Your task to perform on an android device: Open location settings Image 0: 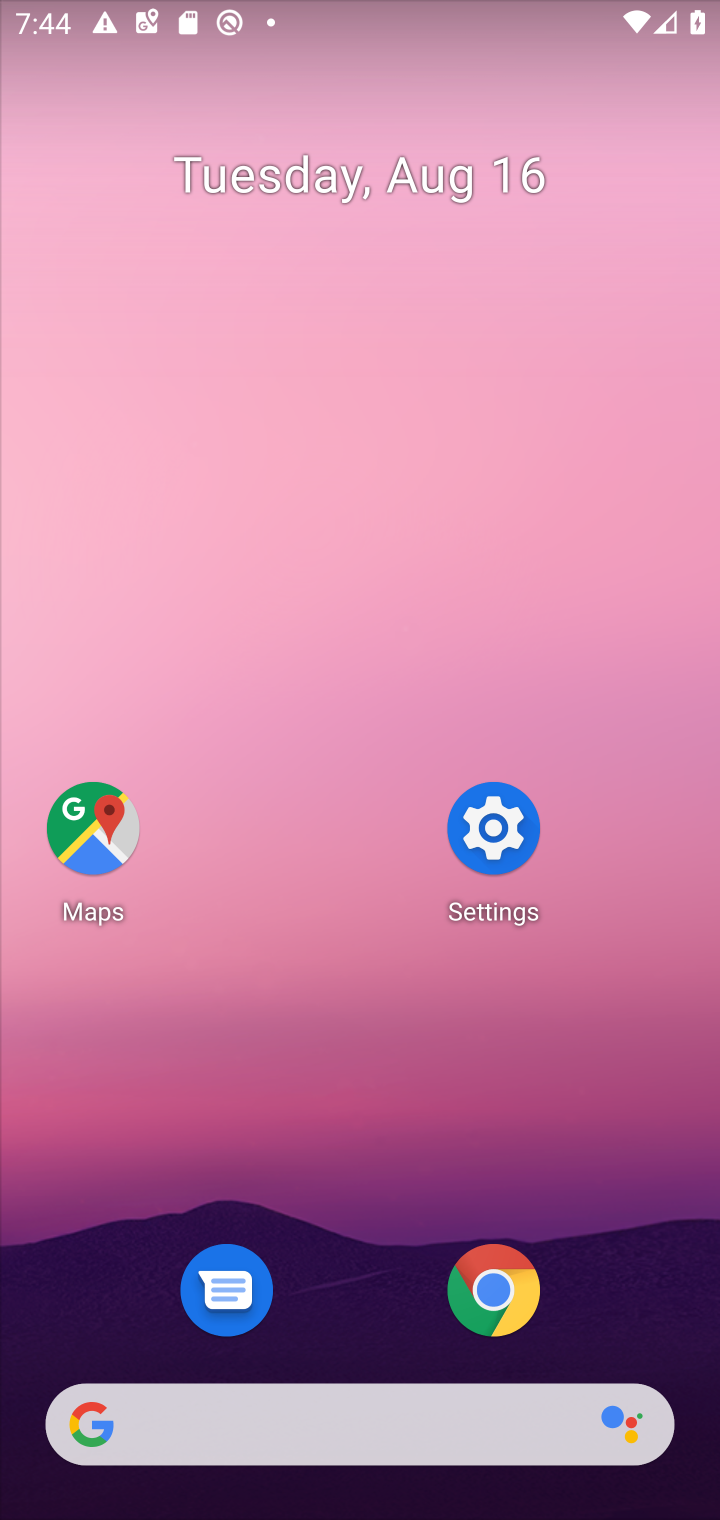
Step 0: press home button
Your task to perform on an android device: Open location settings Image 1: 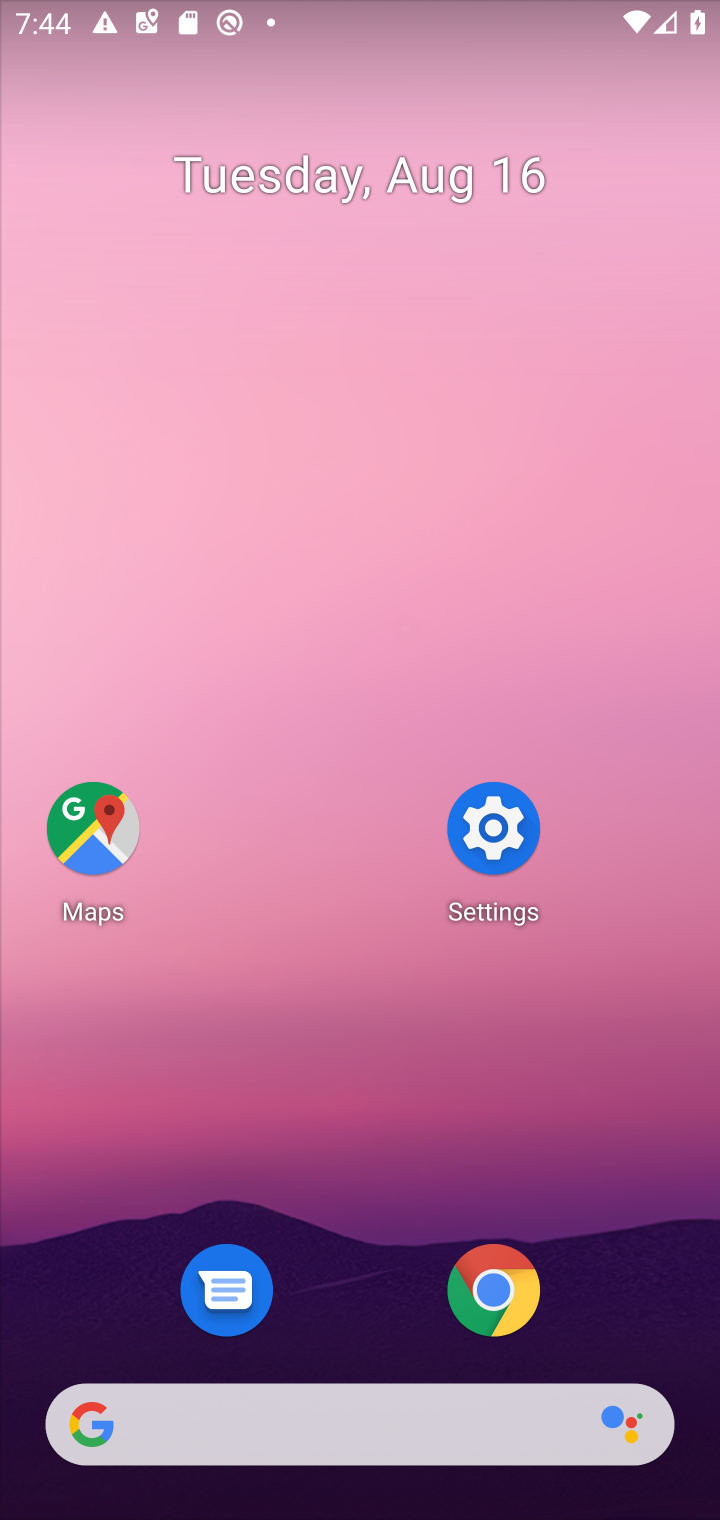
Step 1: click (499, 834)
Your task to perform on an android device: Open location settings Image 2: 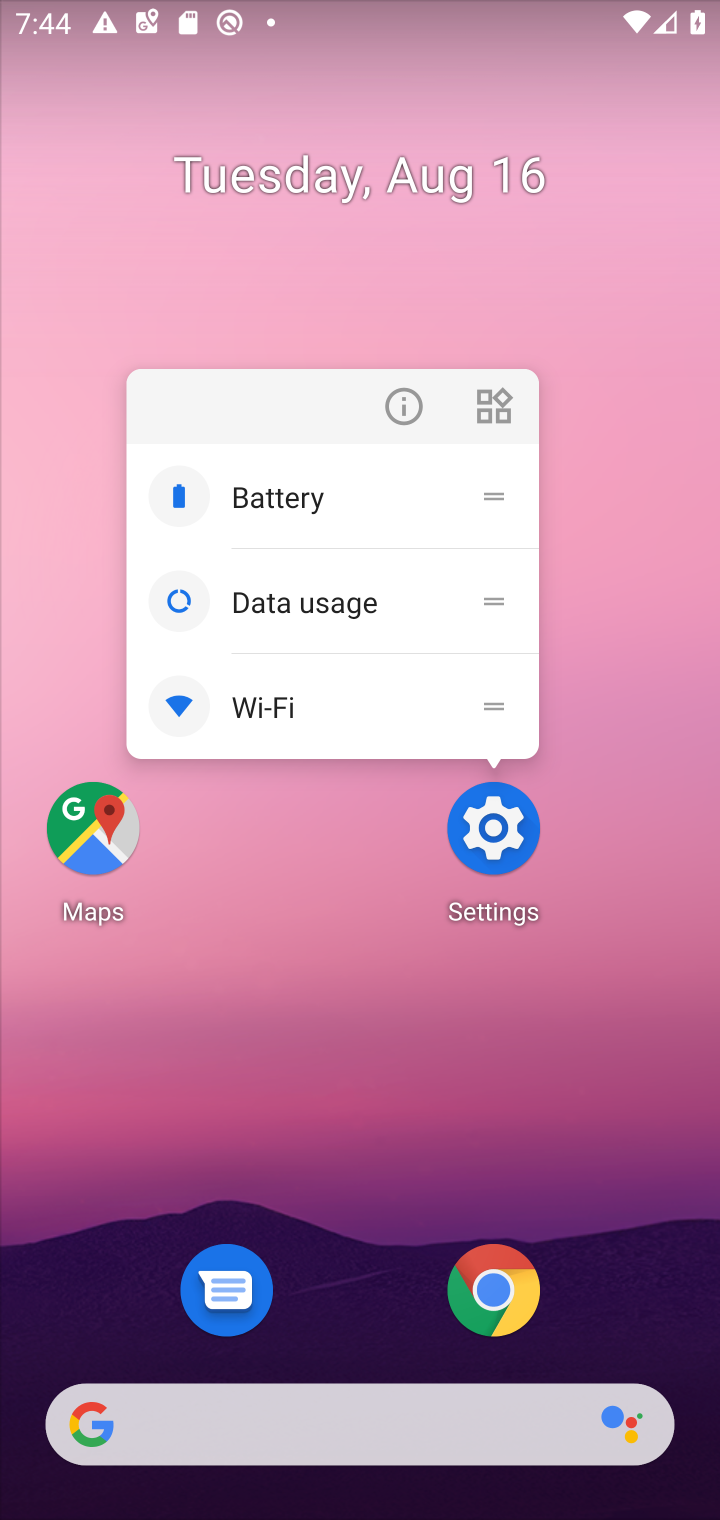
Step 2: click (488, 845)
Your task to perform on an android device: Open location settings Image 3: 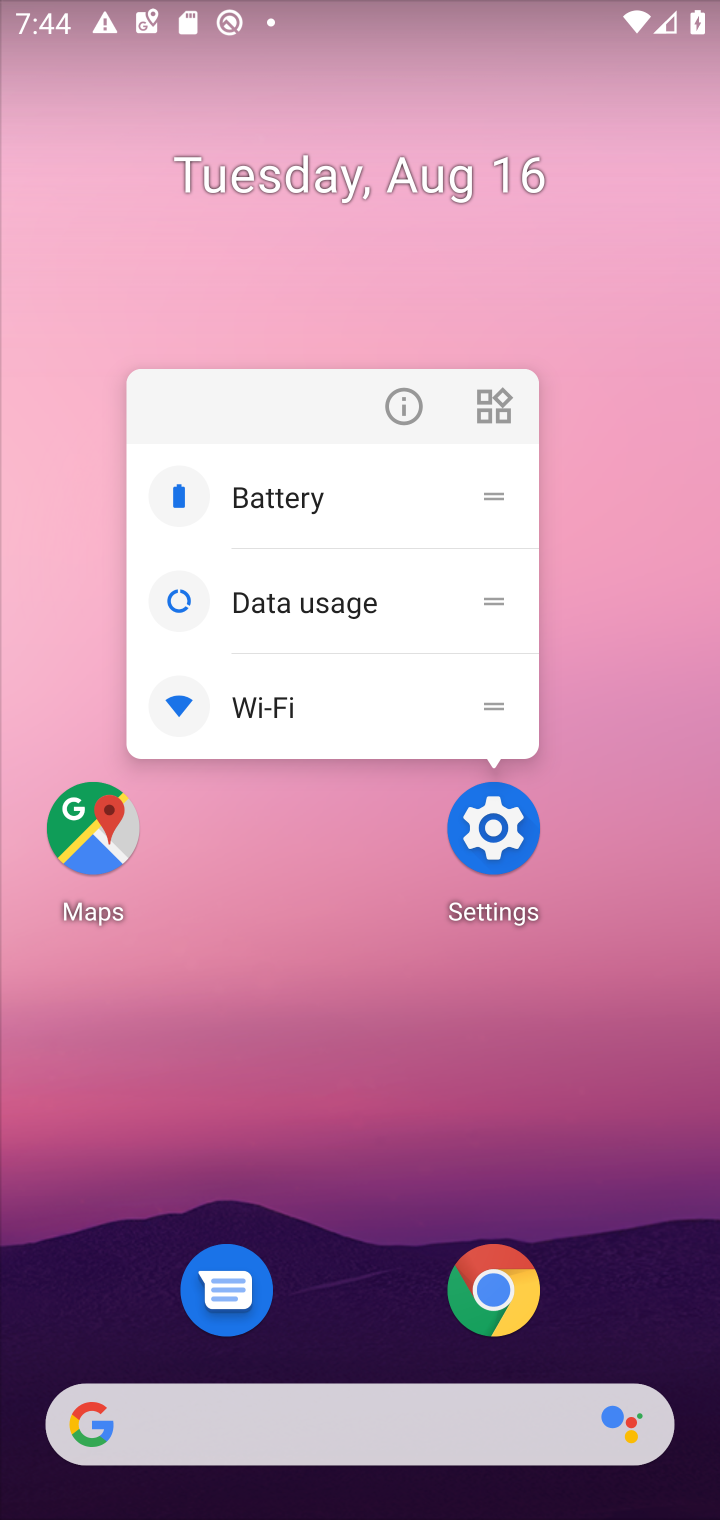
Step 3: click (488, 845)
Your task to perform on an android device: Open location settings Image 4: 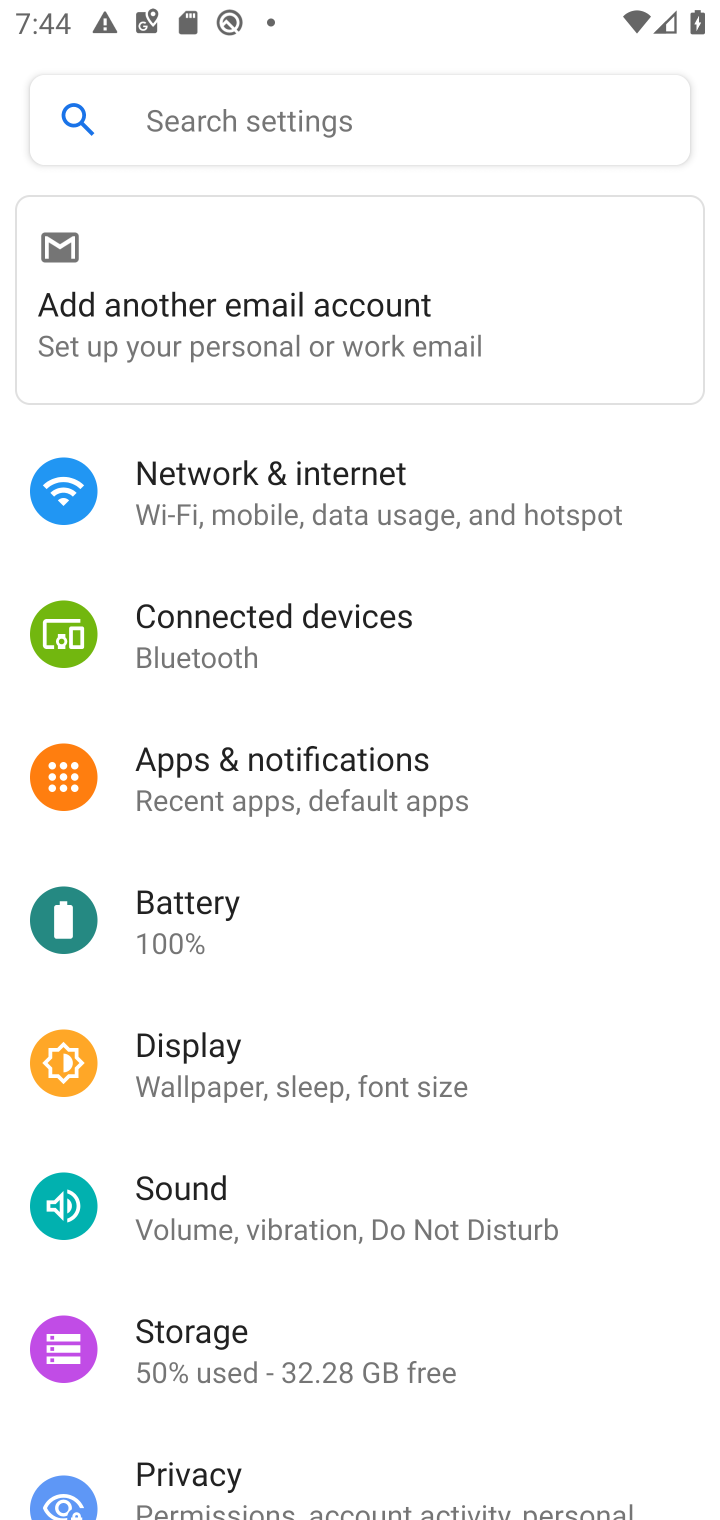
Step 4: drag from (342, 1286) to (632, 442)
Your task to perform on an android device: Open location settings Image 5: 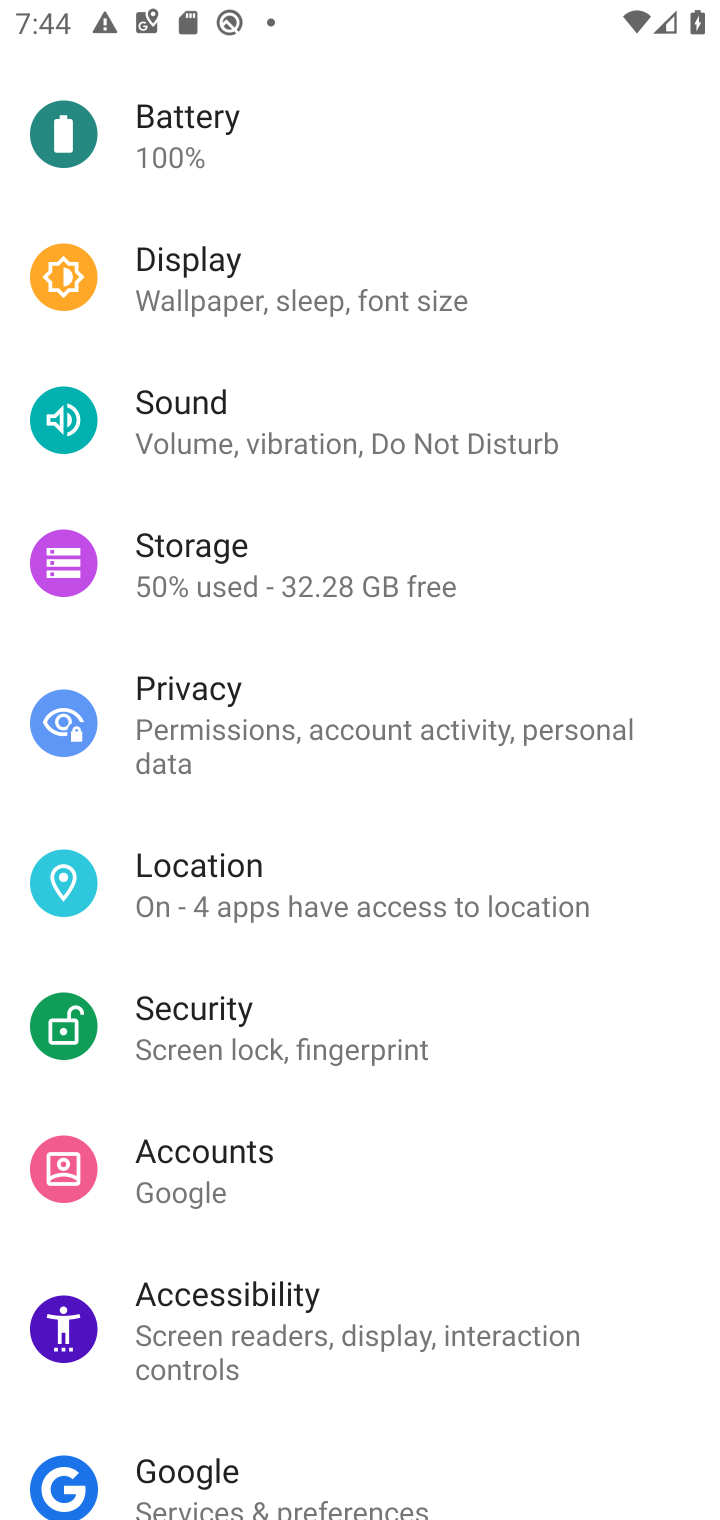
Step 5: click (203, 869)
Your task to perform on an android device: Open location settings Image 6: 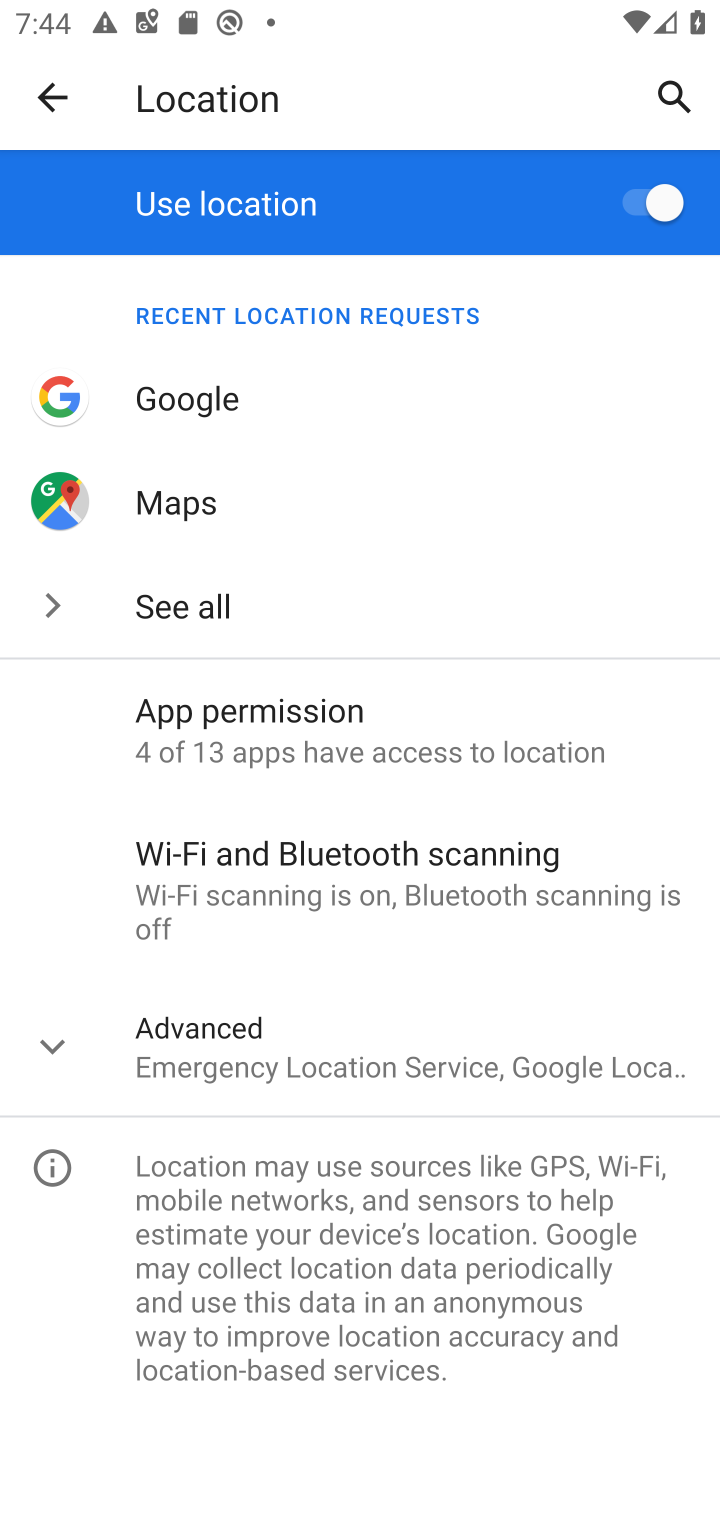
Step 6: task complete